Your task to perform on an android device: Go to Wikipedia Image 0: 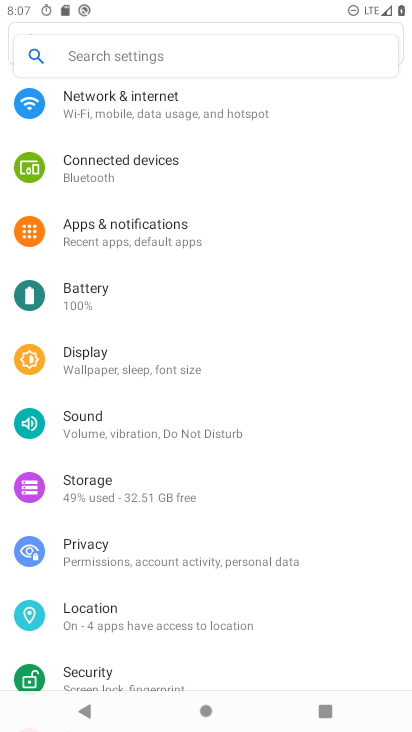
Step 0: press home button
Your task to perform on an android device: Go to Wikipedia Image 1: 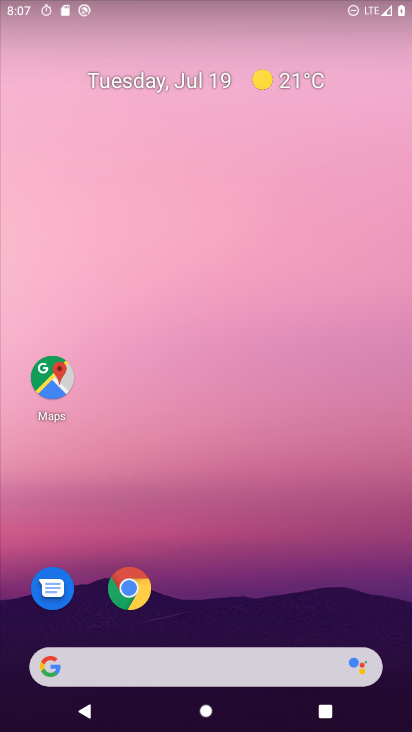
Step 1: drag from (212, 591) to (214, 211)
Your task to perform on an android device: Go to Wikipedia Image 2: 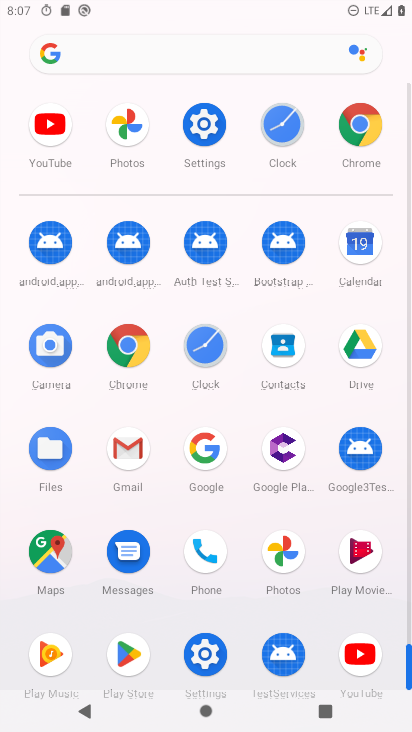
Step 2: click (122, 362)
Your task to perform on an android device: Go to Wikipedia Image 3: 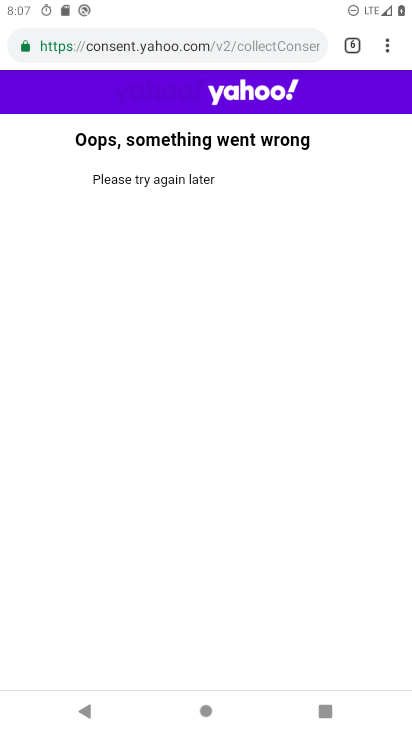
Step 3: click (352, 46)
Your task to perform on an android device: Go to Wikipedia Image 4: 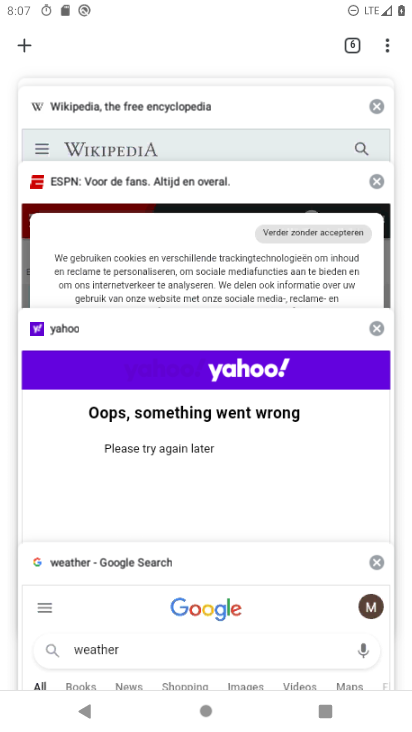
Step 4: click (111, 150)
Your task to perform on an android device: Go to Wikipedia Image 5: 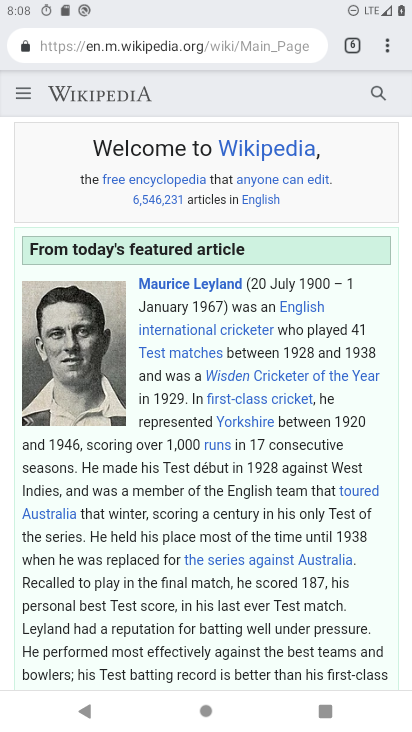
Step 5: task complete